Your task to perform on an android device: star an email in the gmail app Image 0: 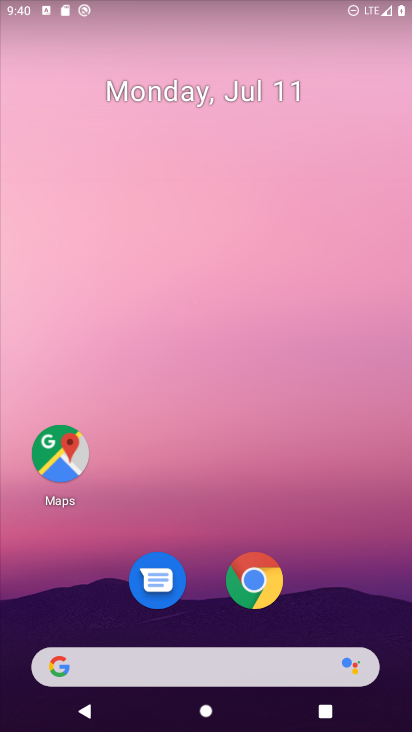
Step 0: drag from (300, 479) to (299, 0)
Your task to perform on an android device: star an email in the gmail app Image 1: 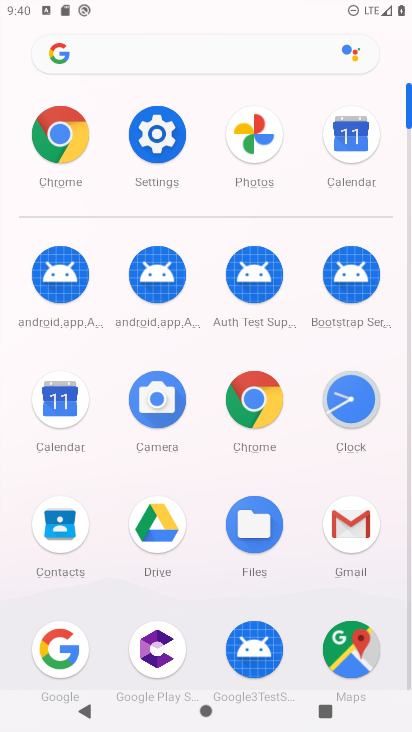
Step 1: click (359, 521)
Your task to perform on an android device: star an email in the gmail app Image 2: 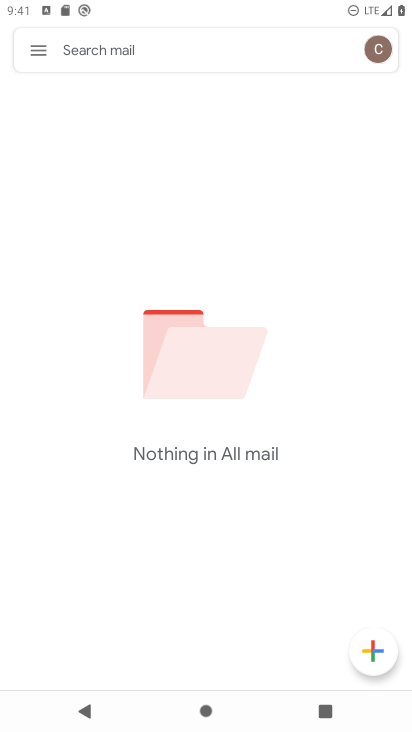
Step 2: task complete